Your task to perform on an android device: Go to location settings Image 0: 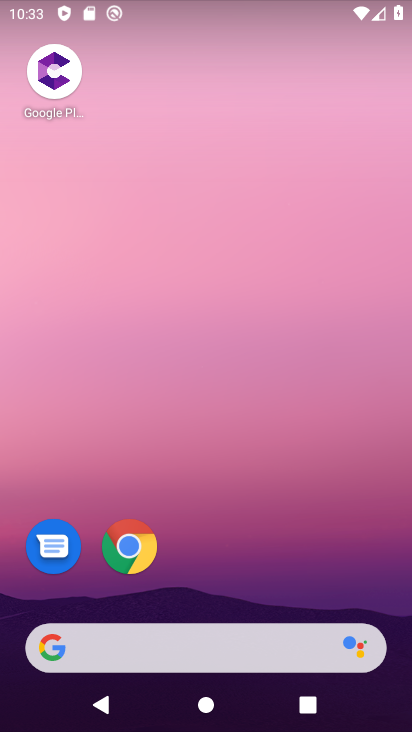
Step 0: drag from (206, 608) to (285, 102)
Your task to perform on an android device: Go to location settings Image 1: 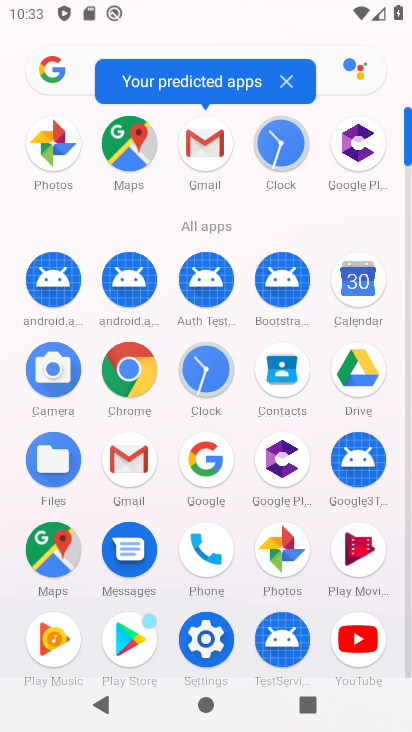
Step 1: click (199, 637)
Your task to perform on an android device: Go to location settings Image 2: 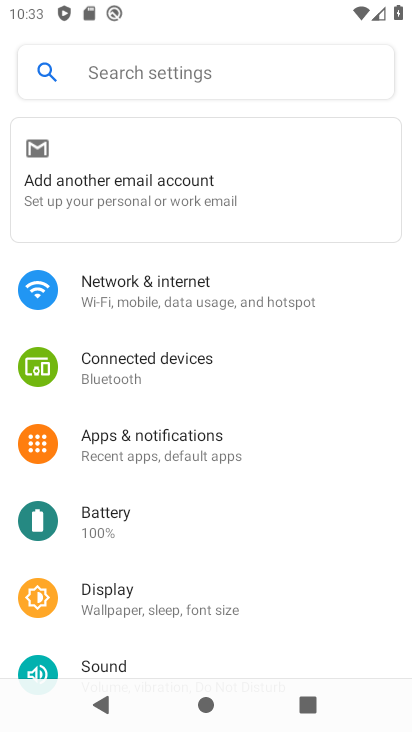
Step 2: drag from (196, 631) to (248, 340)
Your task to perform on an android device: Go to location settings Image 3: 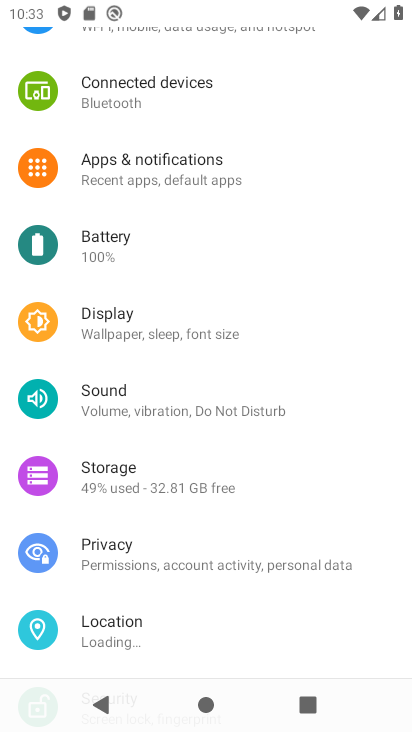
Step 3: click (155, 621)
Your task to perform on an android device: Go to location settings Image 4: 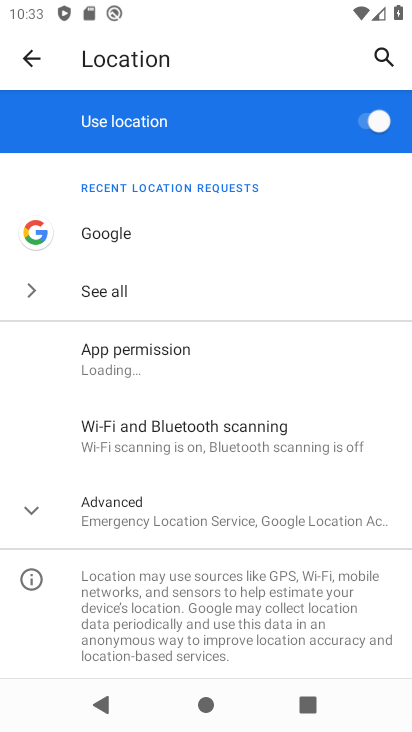
Step 4: click (182, 513)
Your task to perform on an android device: Go to location settings Image 5: 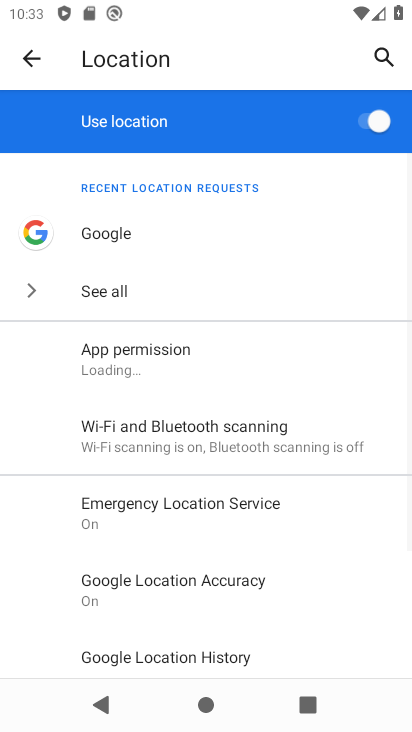
Step 5: task complete